Your task to perform on an android device: Open notification settings Image 0: 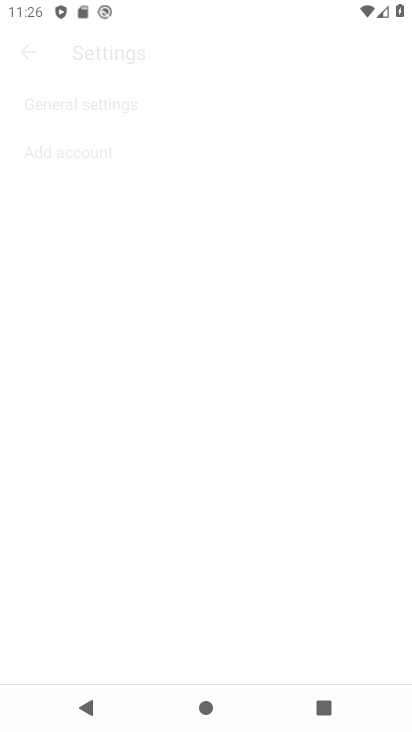
Step 0: drag from (213, 481) to (406, 1)
Your task to perform on an android device: Open notification settings Image 1: 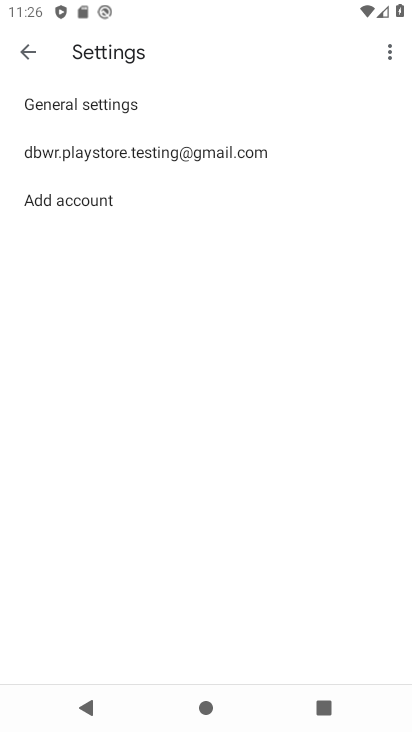
Step 1: press home button
Your task to perform on an android device: Open notification settings Image 2: 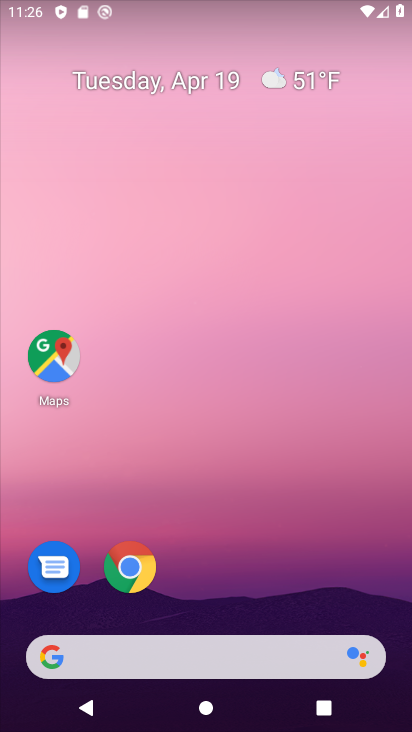
Step 2: drag from (213, 444) to (410, 91)
Your task to perform on an android device: Open notification settings Image 3: 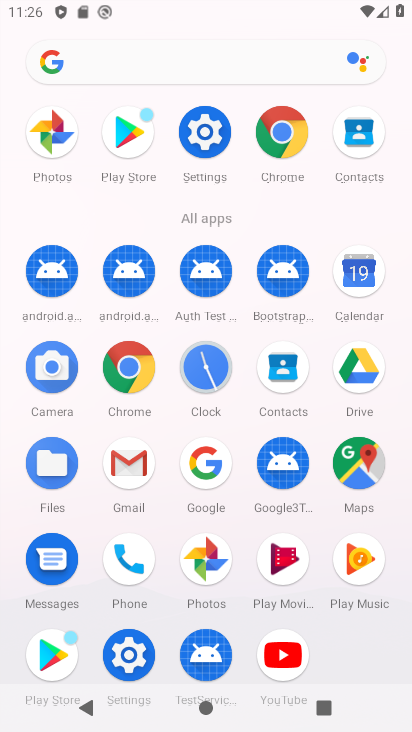
Step 3: click (200, 139)
Your task to perform on an android device: Open notification settings Image 4: 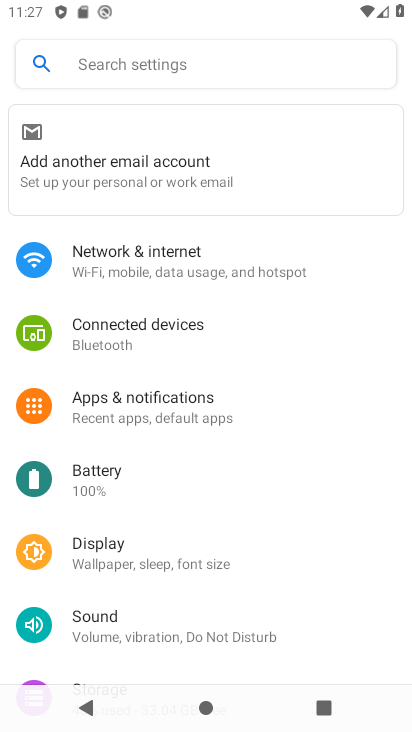
Step 4: click (163, 413)
Your task to perform on an android device: Open notification settings Image 5: 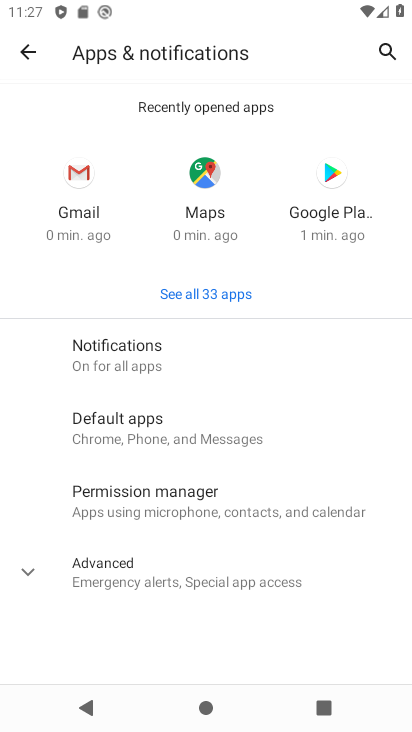
Step 5: click (144, 380)
Your task to perform on an android device: Open notification settings Image 6: 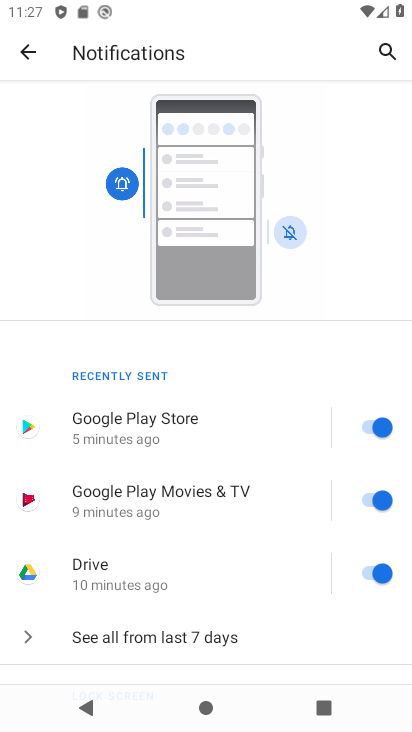
Step 6: task complete